Your task to perform on an android device: change the clock display to analog Image 0: 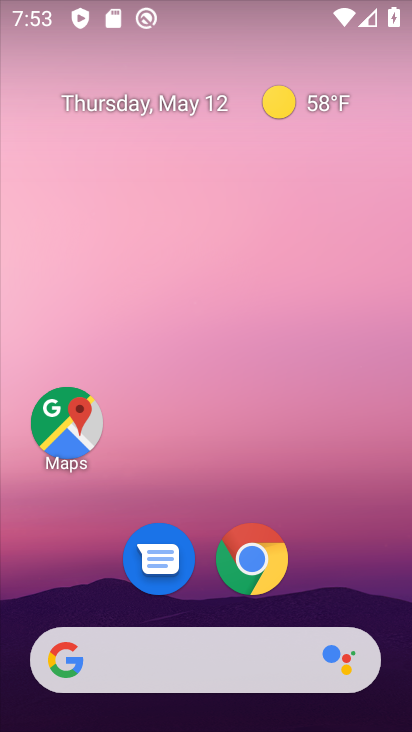
Step 0: drag from (319, 590) to (275, 20)
Your task to perform on an android device: change the clock display to analog Image 1: 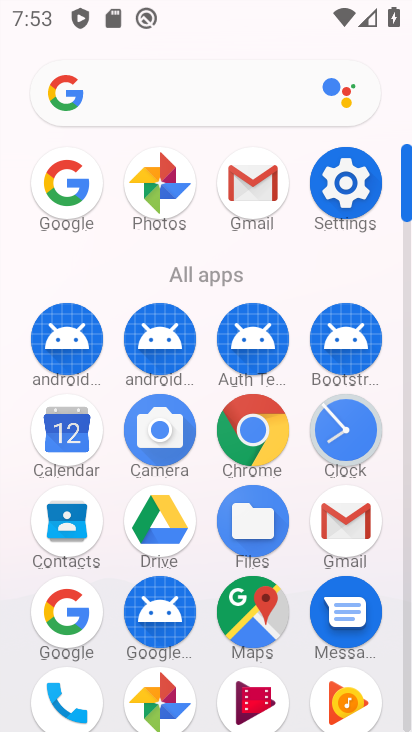
Step 1: click (346, 430)
Your task to perform on an android device: change the clock display to analog Image 2: 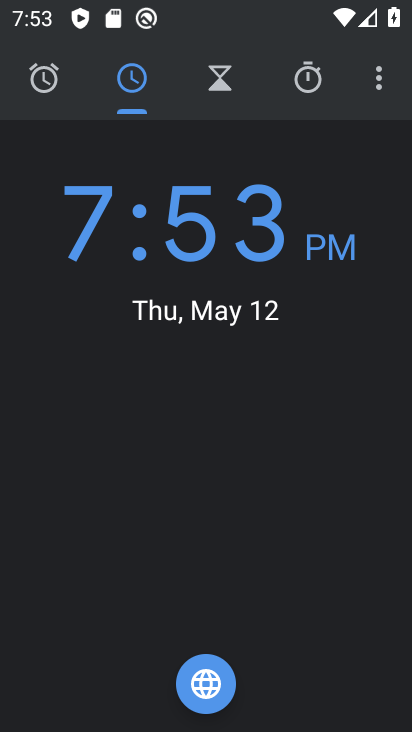
Step 2: click (380, 81)
Your task to perform on an android device: change the clock display to analog Image 3: 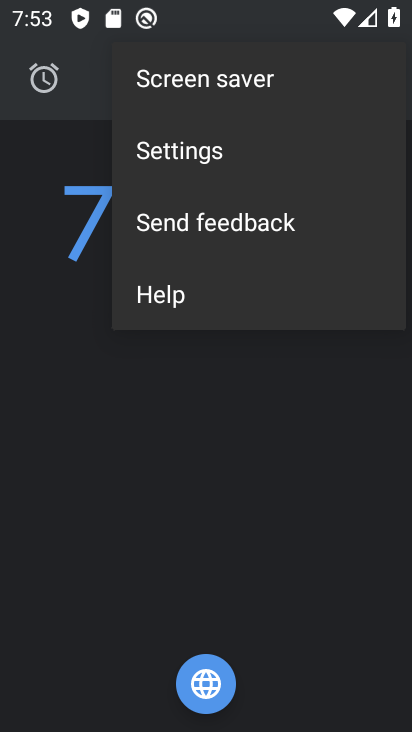
Step 3: click (198, 147)
Your task to perform on an android device: change the clock display to analog Image 4: 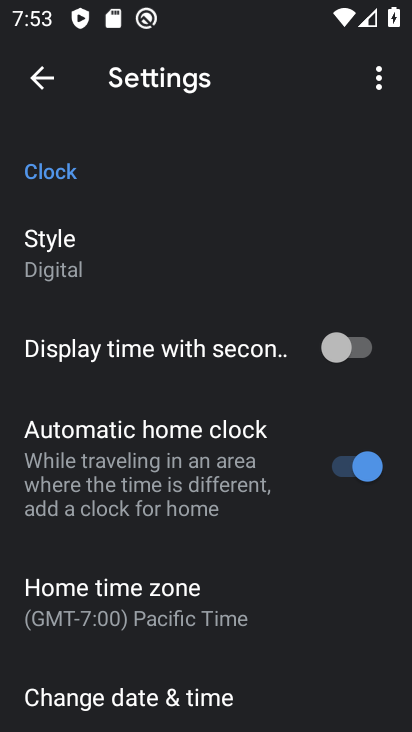
Step 4: click (54, 255)
Your task to perform on an android device: change the clock display to analog Image 5: 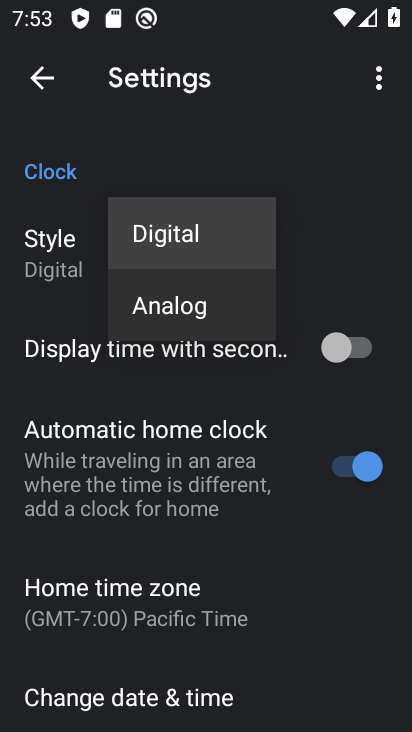
Step 5: click (143, 306)
Your task to perform on an android device: change the clock display to analog Image 6: 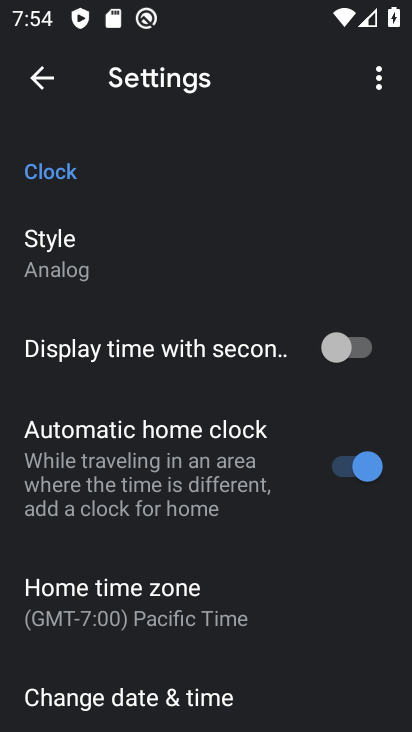
Step 6: task complete